Your task to perform on an android device: What's on my calendar tomorrow? Image 0: 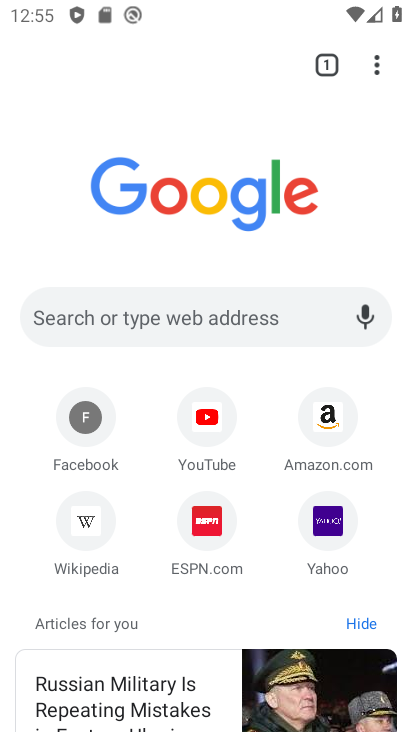
Step 0: press home button
Your task to perform on an android device: What's on my calendar tomorrow? Image 1: 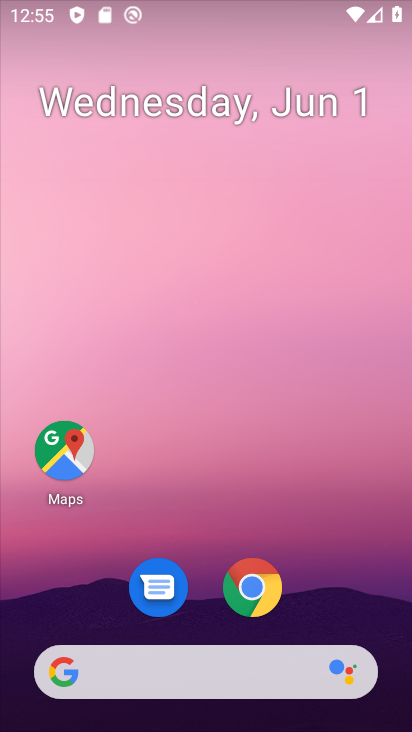
Step 1: drag from (197, 522) to (241, 80)
Your task to perform on an android device: What's on my calendar tomorrow? Image 2: 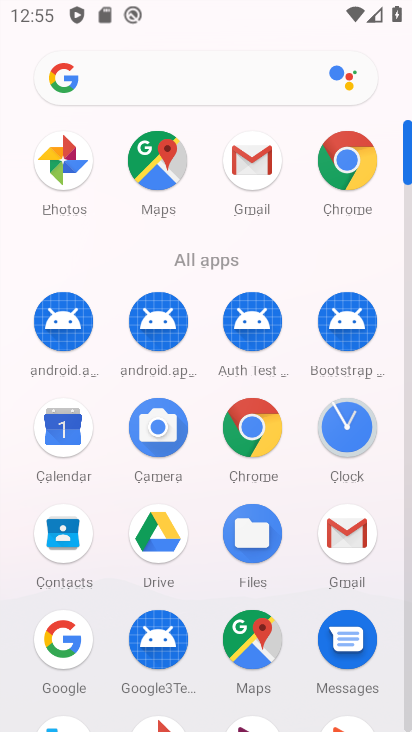
Step 2: click (80, 447)
Your task to perform on an android device: What's on my calendar tomorrow? Image 3: 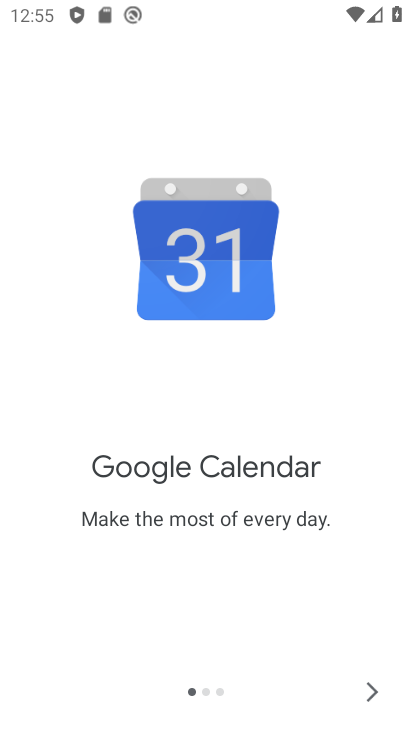
Step 3: click (348, 699)
Your task to perform on an android device: What's on my calendar tomorrow? Image 4: 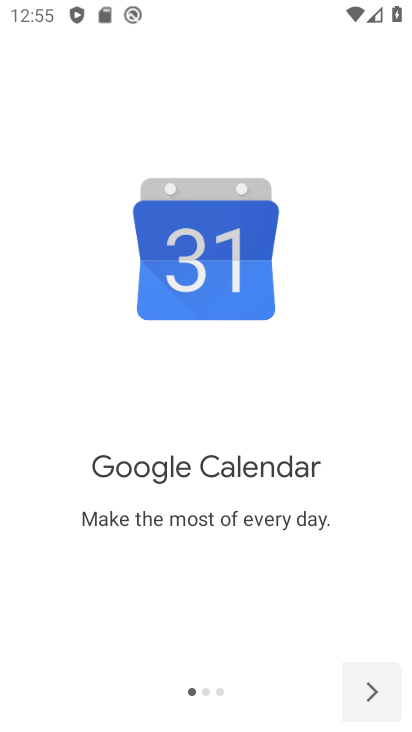
Step 4: click (348, 698)
Your task to perform on an android device: What's on my calendar tomorrow? Image 5: 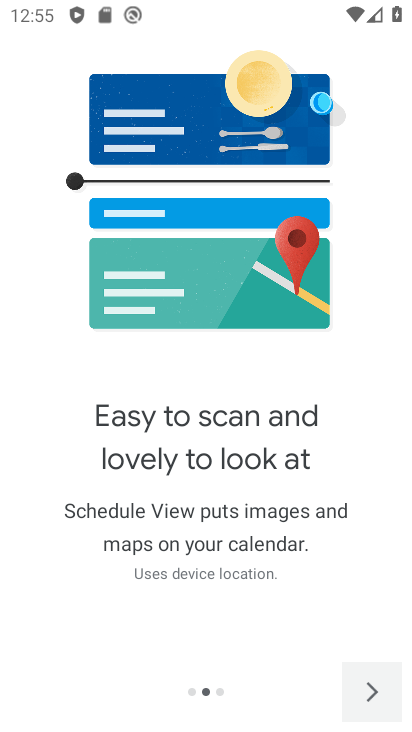
Step 5: click (409, 682)
Your task to perform on an android device: What's on my calendar tomorrow? Image 6: 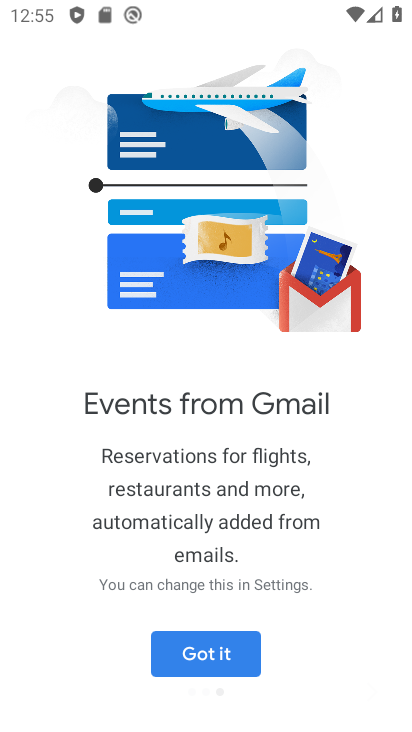
Step 6: click (381, 680)
Your task to perform on an android device: What's on my calendar tomorrow? Image 7: 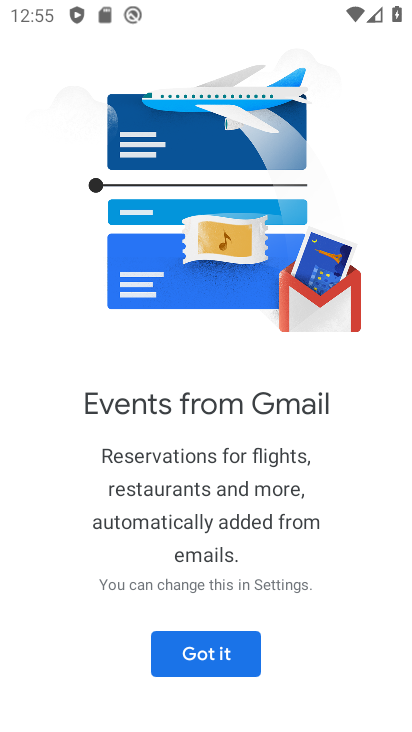
Step 7: click (260, 635)
Your task to perform on an android device: What's on my calendar tomorrow? Image 8: 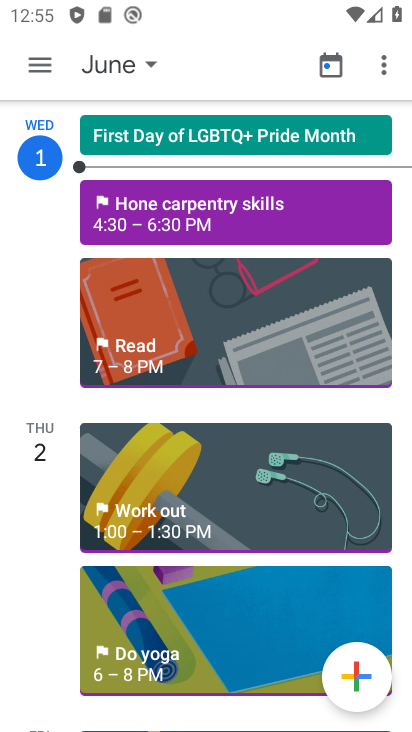
Step 8: click (140, 65)
Your task to perform on an android device: What's on my calendar tomorrow? Image 9: 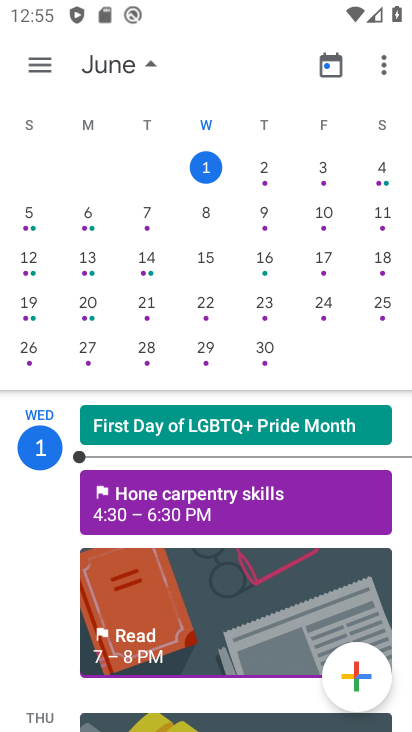
Step 9: click (275, 168)
Your task to perform on an android device: What's on my calendar tomorrow? Image 10: 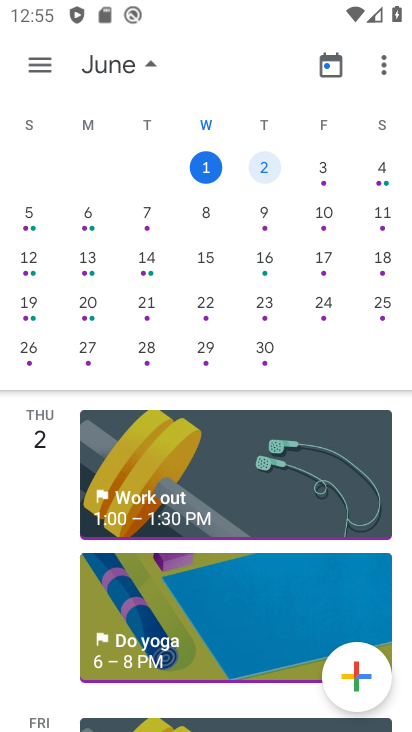
Step 10: click (130, 69)
Your task to perform on an android device: What's on my calendar tomorrow? Image 11: 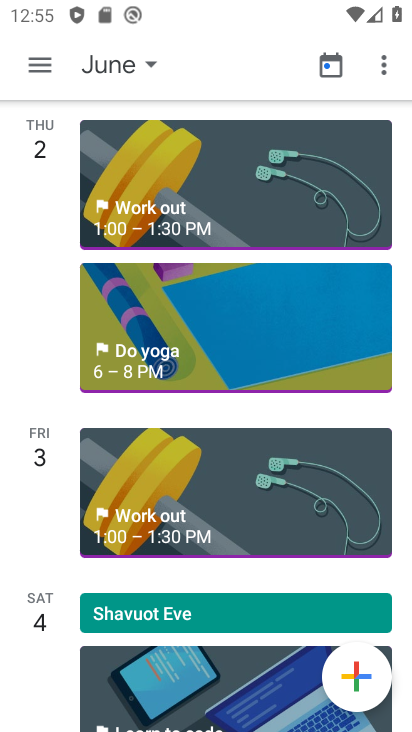
Step 11: task complete